Your task to perform on an android device: open a new tab in the chrome app Image 0: 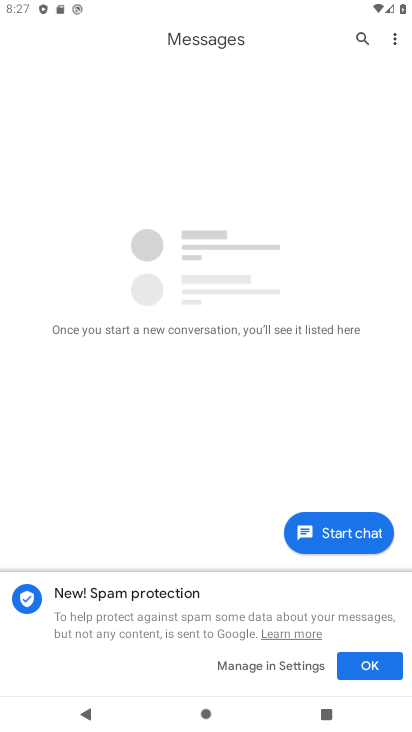
Step 0: press back button
Your task to perform on an android device: open a new tab in the chrome app Image 1: 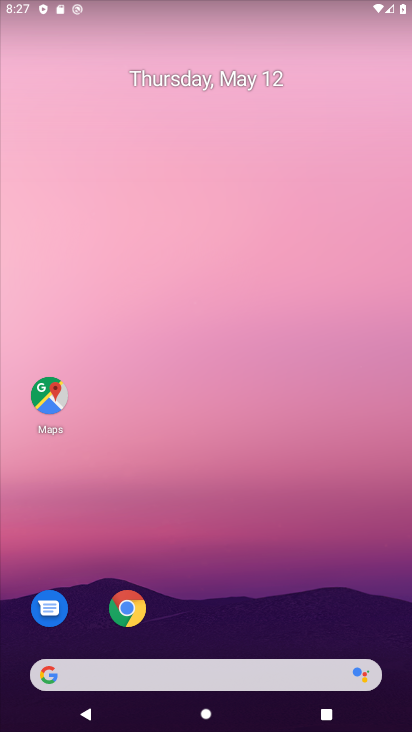
Step 1: click (117, 616)
Your task to perform on an android device: open a new tab in the chrome app Image 2: 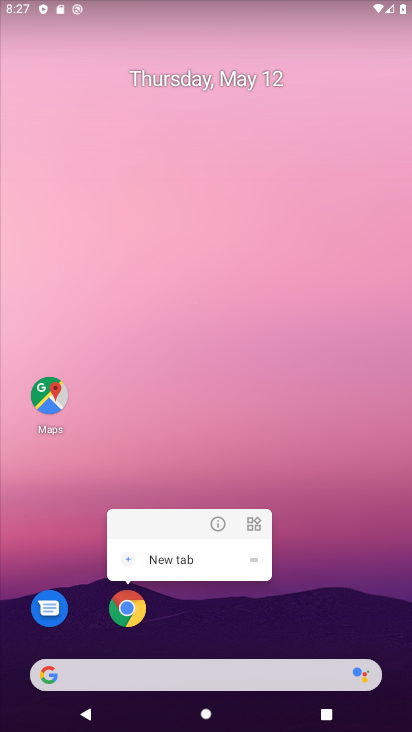
Step 2: click (122, 609)
Your task to perform on an android device: open a new tab in the chrome app Image 3: 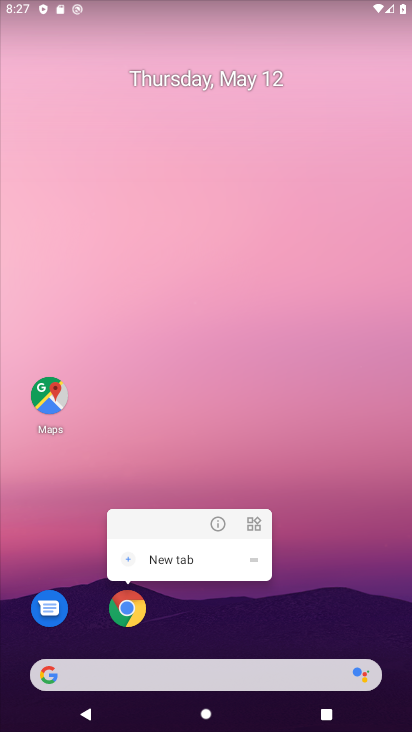
Step 3: click (129, 603)
Your task to perform on an android device: open a new tab in the chrome app Image 4: 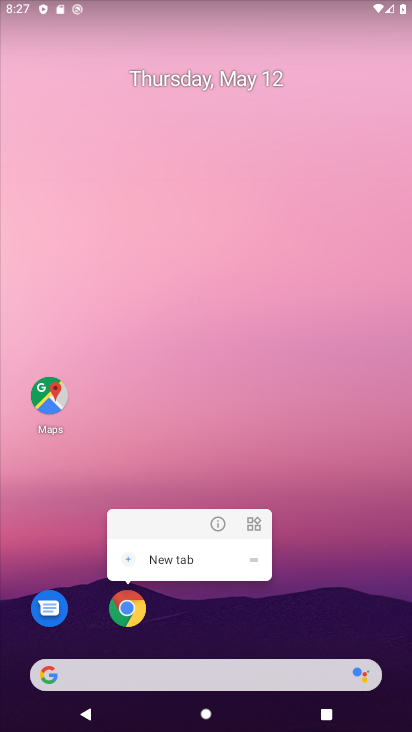
Step 4: click (134, 617)
Your task to perform on an android device: open a new tab in the chrome app Image 5: 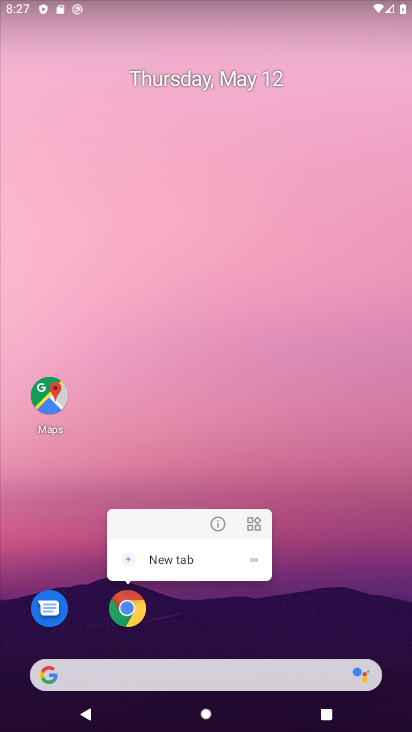
Step 5: click (134, 607)
Your task to perform on an android device: open a new tab in the chrome app Image 6: 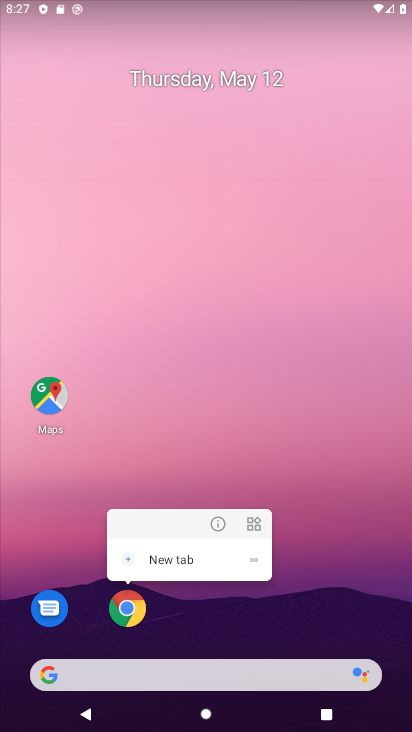
Step 6: click (134, 607)
Your task to perform on an android device: open a new tab in the chrome app Image 7: 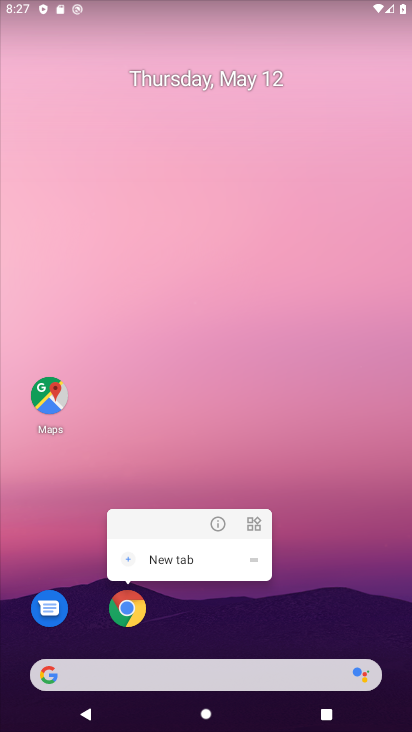
Step 7: click (133, 609)
Your task to perform on an android device: open a new tab in the chrome app Image 8: 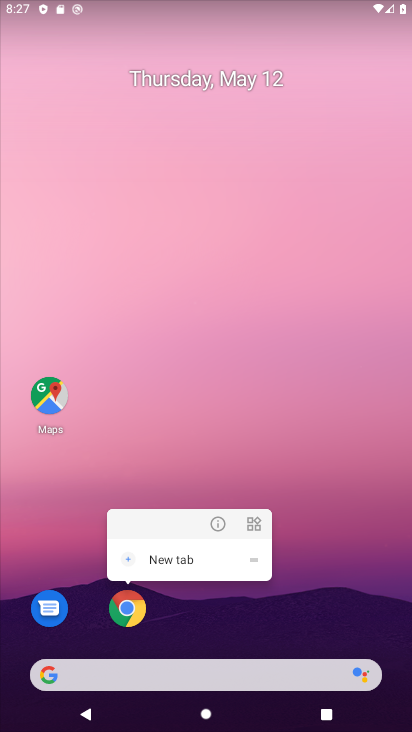
Step 8: click (131, 610)
Your task to perform on an android device: open a new tab in the chrome app Image 9: 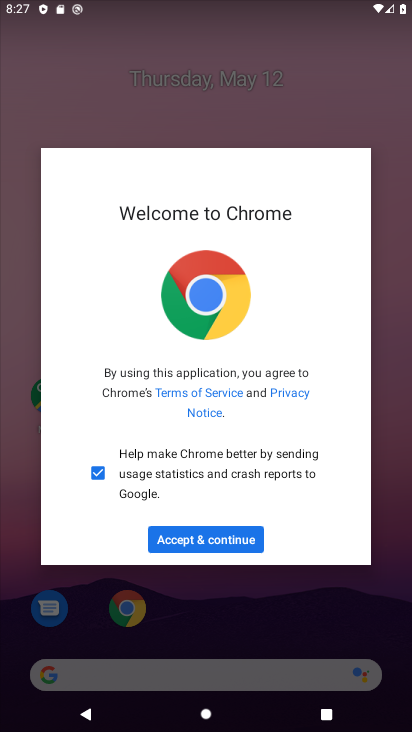
Step 9: click (241, 537)
Your task to perform on an android device: open a new tab in the chrome app Image 10: 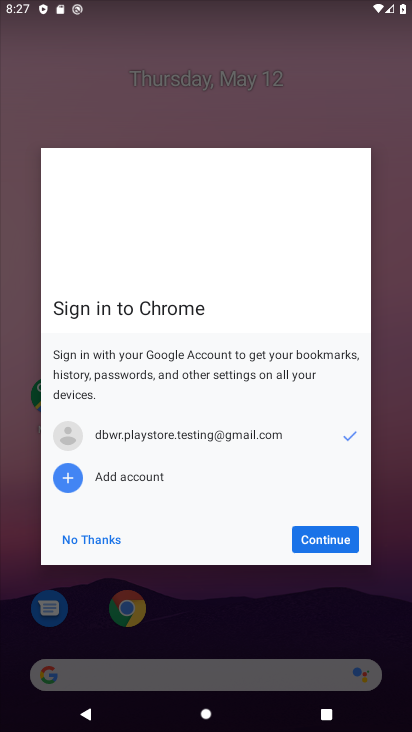
Step 10: click (307, 532)
Your task to perform on an android device: open a new tab in the chrome app Image 11: 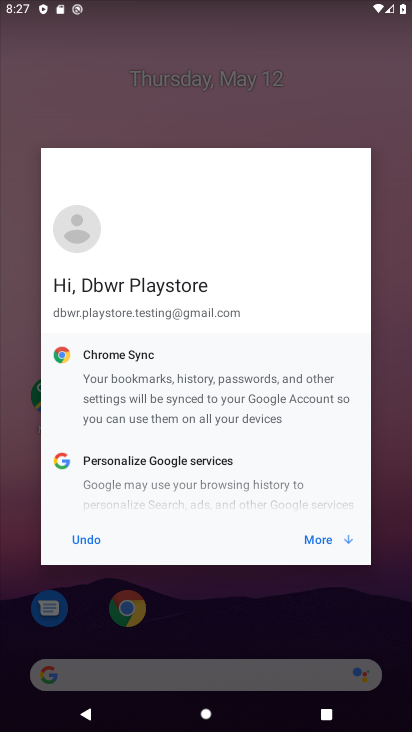
Step 11: click (332, 549)
Your task to perform on an android device: open a new tab in the chrome app Image 12: 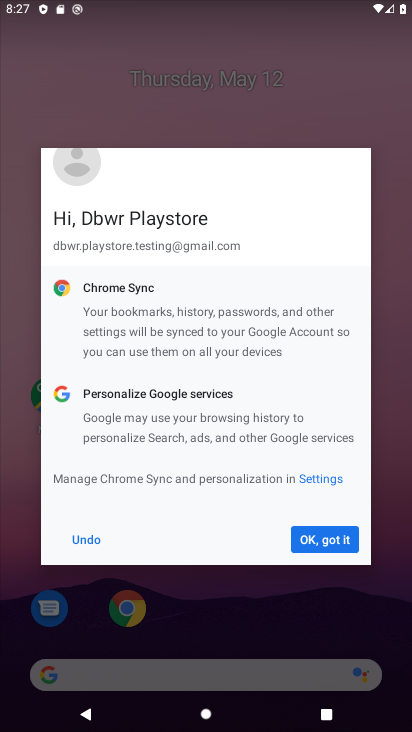
Step 12: click (332, 549)
Your task to perform on an android device: open a new tab in the chrome app Image 13: 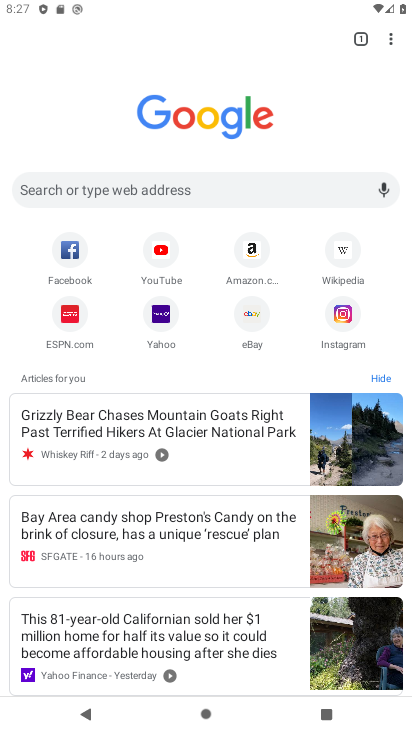
Step 13: task complete